Your task to perform on an android device: turn vacation reply on in the gmail app Image 0: 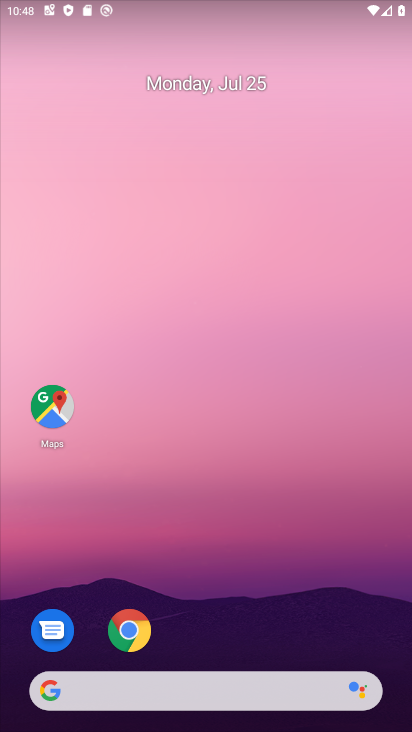
Step 0: press home button
Your task to perform on an android device: turn vacation reply on in the gmail app Image 1: 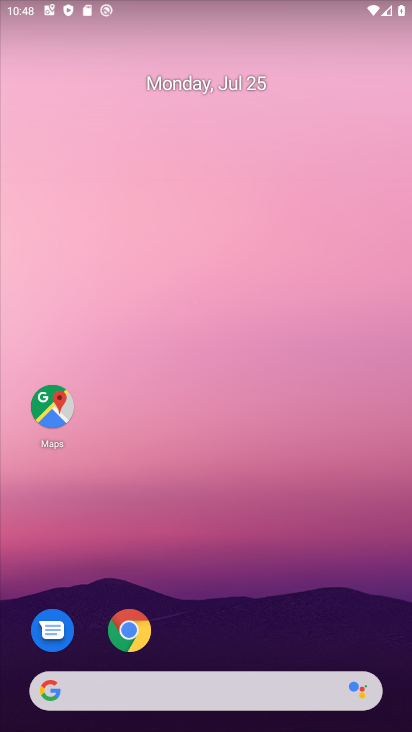
Step 1: drag from (336, 595) to (336, 84)
Your task to perform on an android device: turn vacation reply on in the gmail app Image 2: 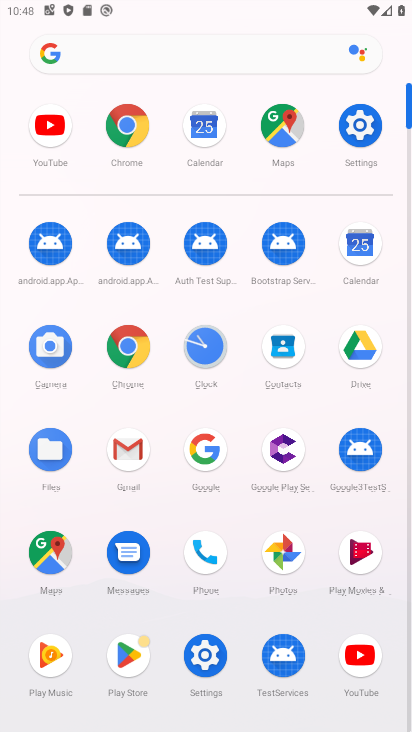
Step 2: click (132, 451)
Your task to perform on an android device: turn vacation reply on in the gmail app Image 3: 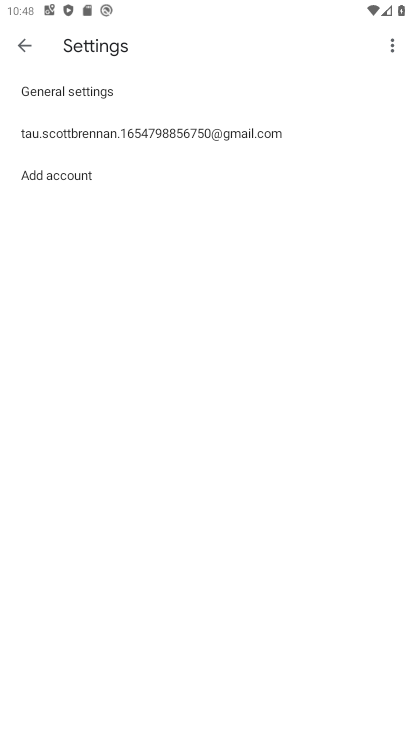
Step 3: press back button
Your task to perform on an android device: turn vacation reply on in the gmail app Image 4: 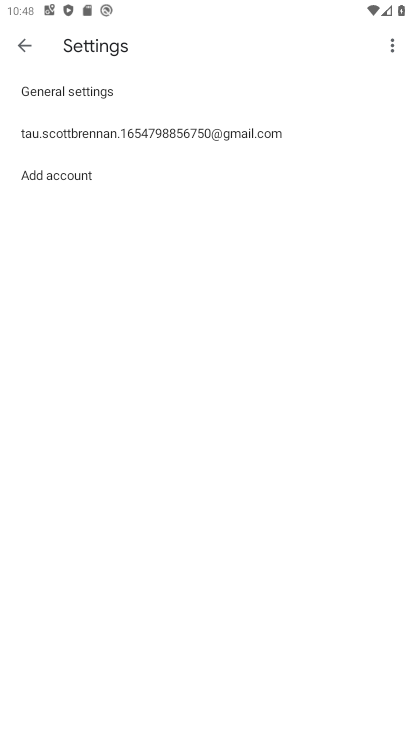
Step 4: click (210, 132)
Your task to perform on an android device: turn vacation reply on in the gmail app Image 5: 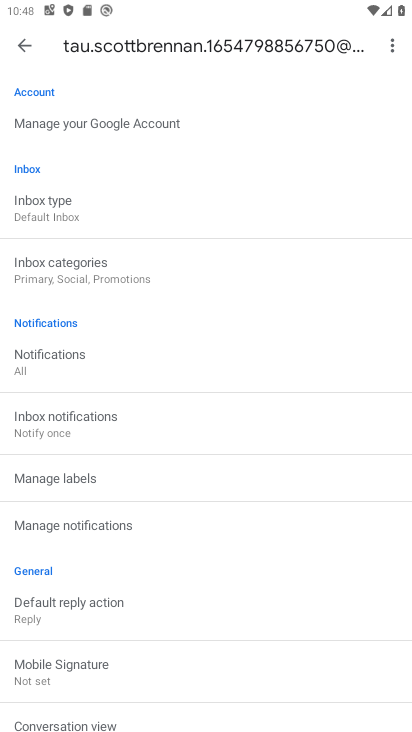
Step 5: drag from (297, 401) to (300, 301)
Your task to perform on an android device: turn vacation reply on in the gmail app Image 6: 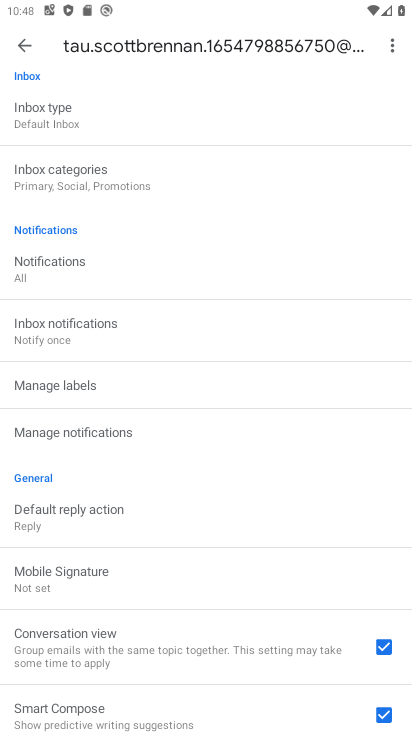
Step 6: drag from (294, 509) to (295, 417)
Your task to perform on an android device: turn vacation reply on in the gmail app Image 7: 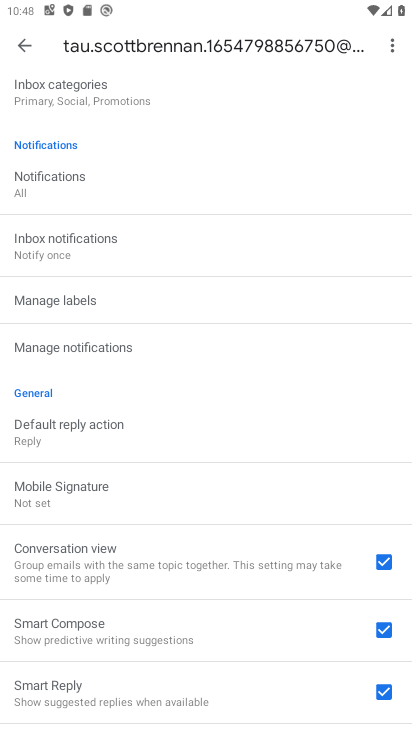
Step 7: drag from (289, 517) to (277, 380)
Your task to perform on an android device: turn vacation reply on in the gmail app Image 8: 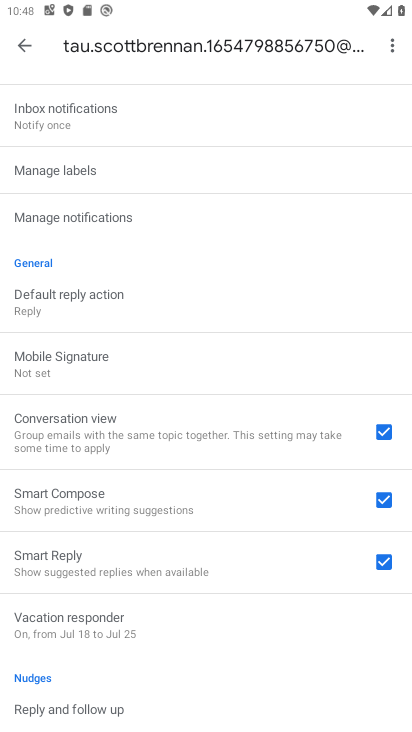
Step 8: drag from (270, 518) to (260, 388)
Your task to perform on an android device: turn vacation reply on in the gmail app Image 9: 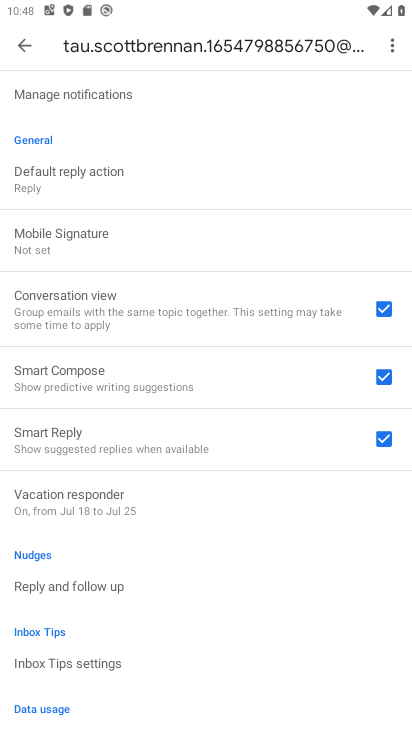
Step 9: drag from (268, 551) to (263, 440)
Your task to perform on an android device: turn vacation reply on in the gmail app Image 10: 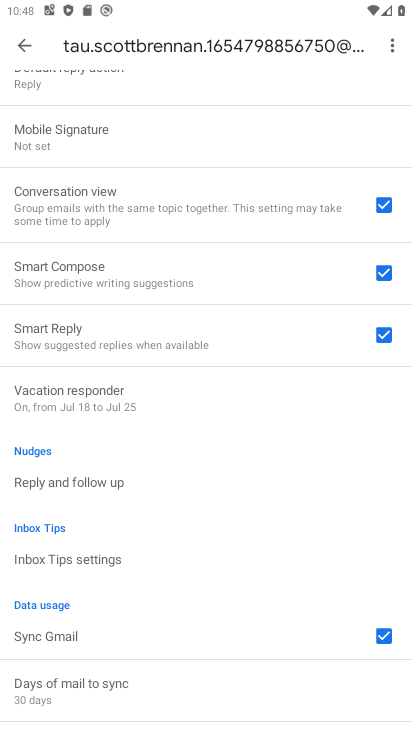
Step 10: drag from (249, 550) to (252, 426)
Your task to perform on an android device: turn vacation reply on in the gmail app Image 11: 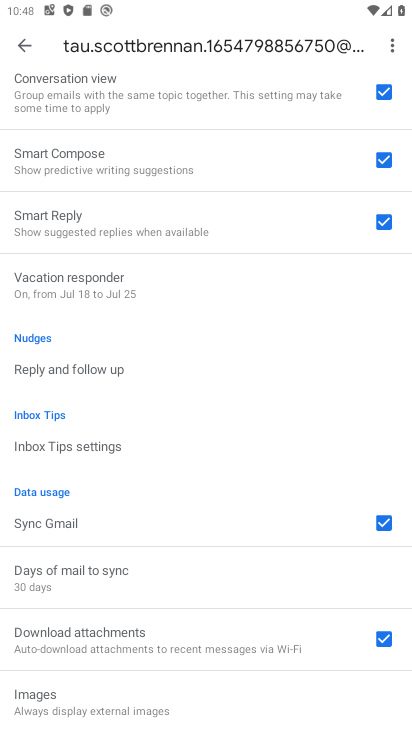
Step 11: click (193, 284)
Your task to perform on an android device: turn vacation reply on in the gmail app Image 12: 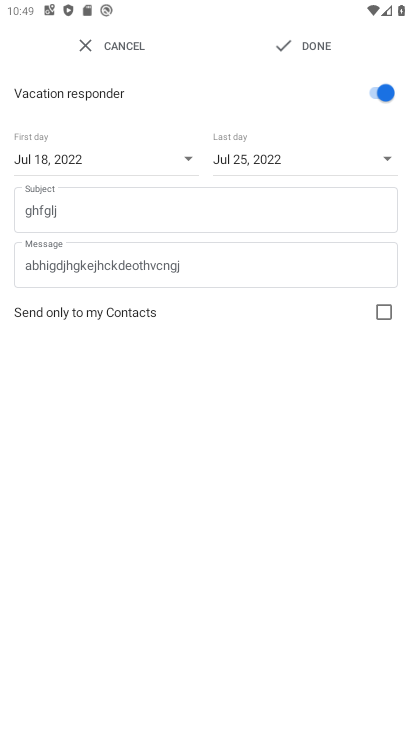
Step 12: task complete